Your task to perform on an android device: check out phone information Image 0: 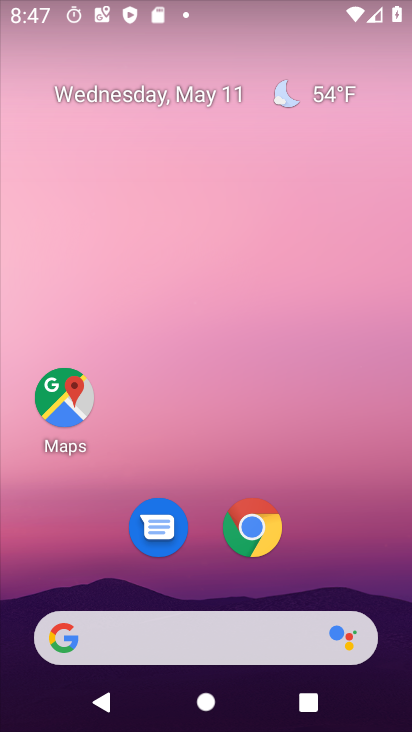
Step 0: drag from (203, 566) to (196, 64)
Your task to perform on an android device: check out phone information Image 1: 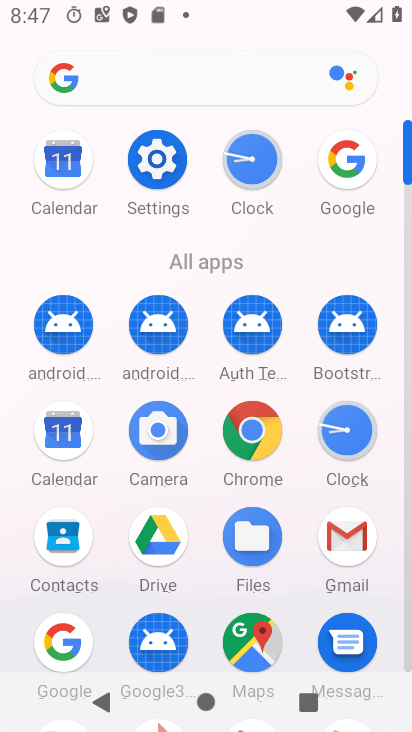
Step 1: click (169, 173)
Your task to perform on an android device: check out phone information Image 2: 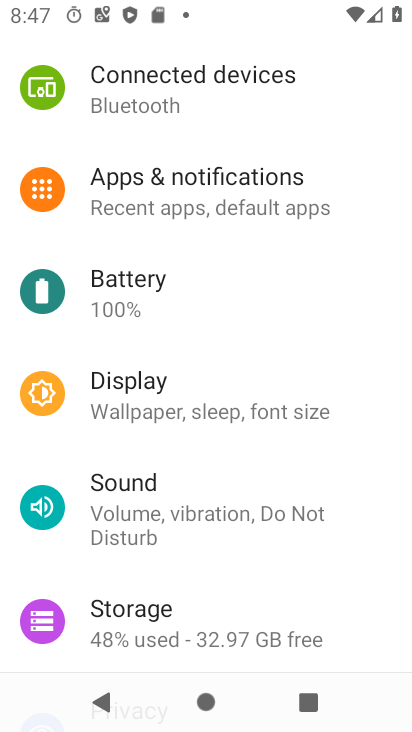
Step 2: drag from (242, 585) to (257, 2)
Your task to perform on an android device: check out phone information Image 3: 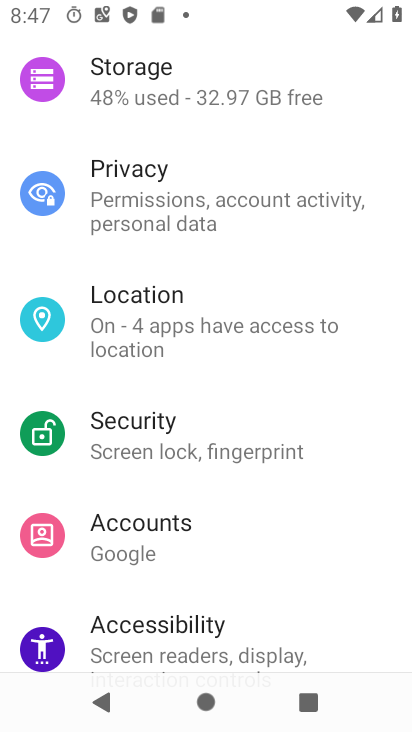
Step 3: drag from (209, 623) to (269, 19)
Your task to perform on an android device: check out phone information Image 4: 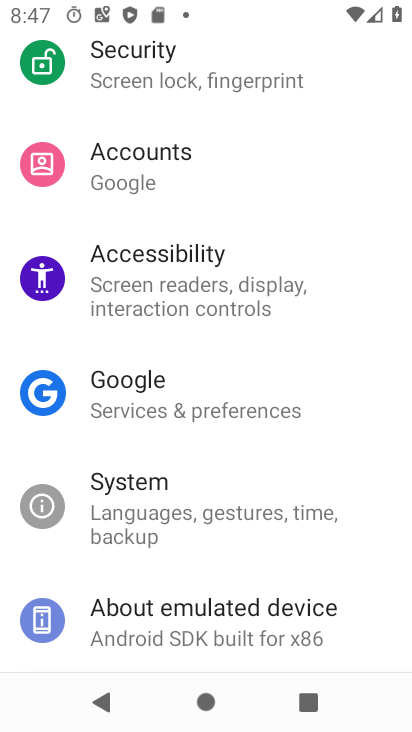
Step 4: click (122, 629)
Your task to perform on an android device: check out phone information Image 5: 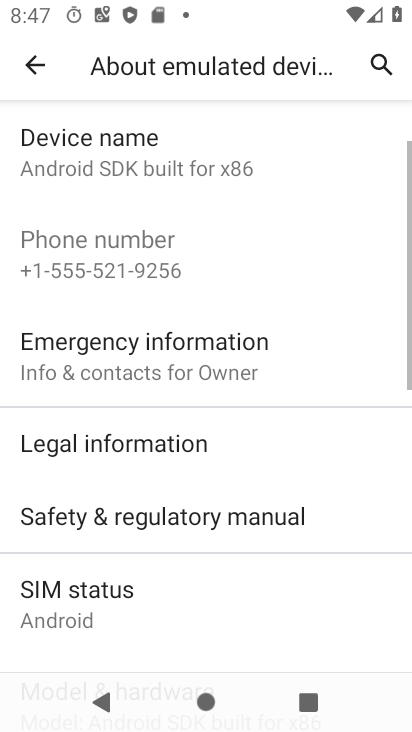
Step 5: task complete